Your task to perform on an android device: Open display settings Image 0: 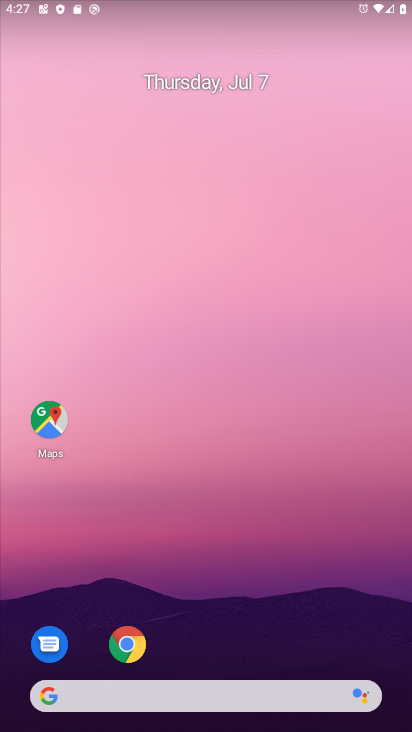
Step 0: drag from (223, 647) to (226, 130)
Your task to perform on an android device: Open display settings Image 1: 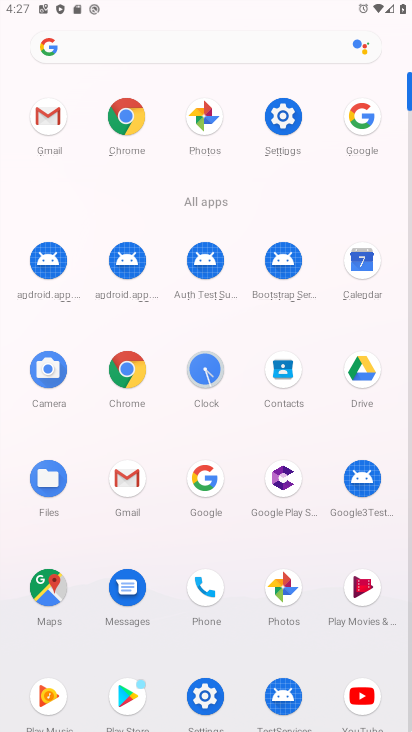
Step 1: click (285, 114)
Your task to perform on an android device: Open display settings Image 2: 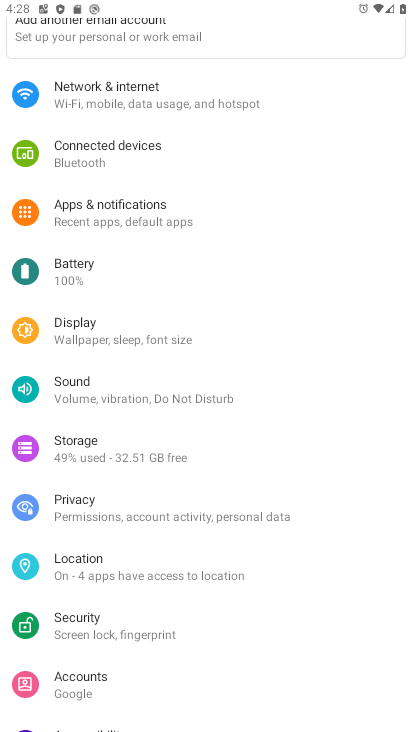
Step 2: click (80, 330)
Your task to perform on an android device: Open display settings Image 3: 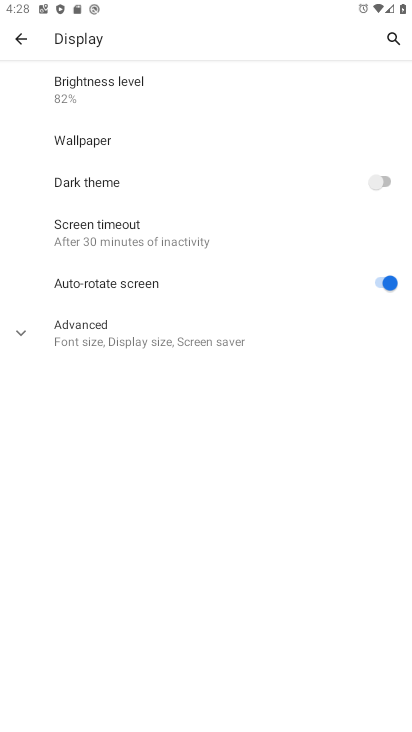
Step 3: task complete